Your task to perform on an android device: Go to Google Image 0: 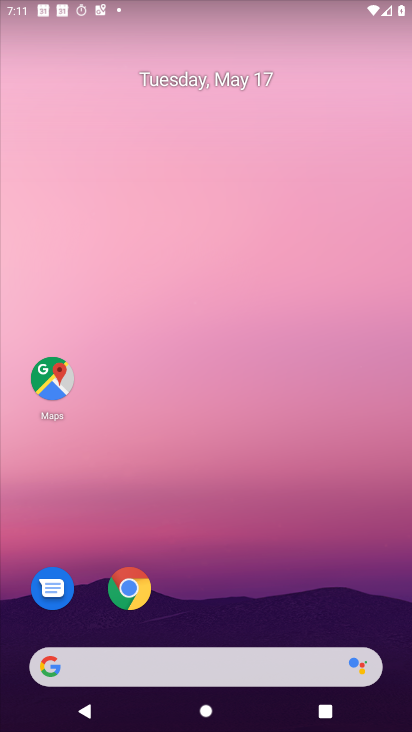
Step 0: drag from (250, 593) to (188, 90)
Your task to perform on an android device: Go to Google Image 1: 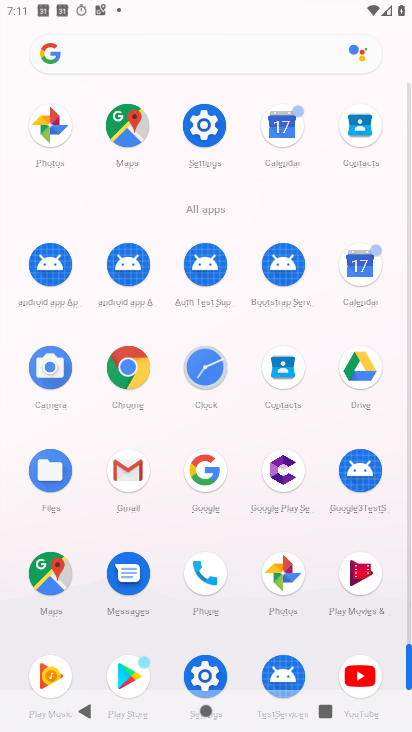
Step 1: click (201, 469)
Your task to perform on an android device: Go to Google Image 2: 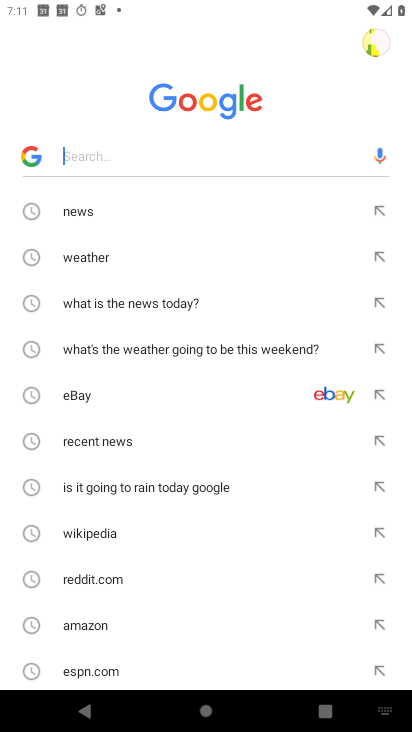
Step 2: task complete